Your task to perform on an android device: Add "asus rog" to the cart on costco.com, then select checkout. Image 0: 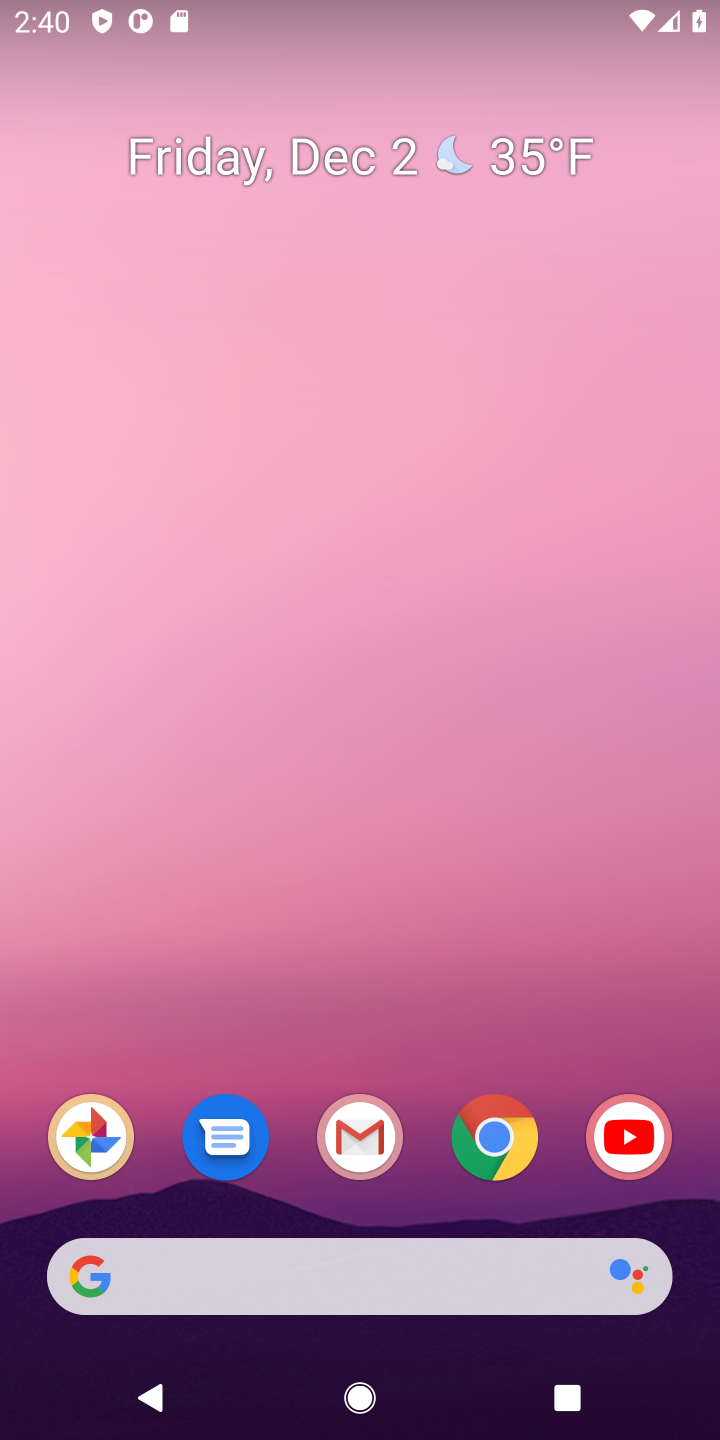
Step 0: drag from (281, 956) to (274, 467)
Your task to perform on an android device: Add "asus rog" to the cart on costco.com, then select checkout. Image 1: 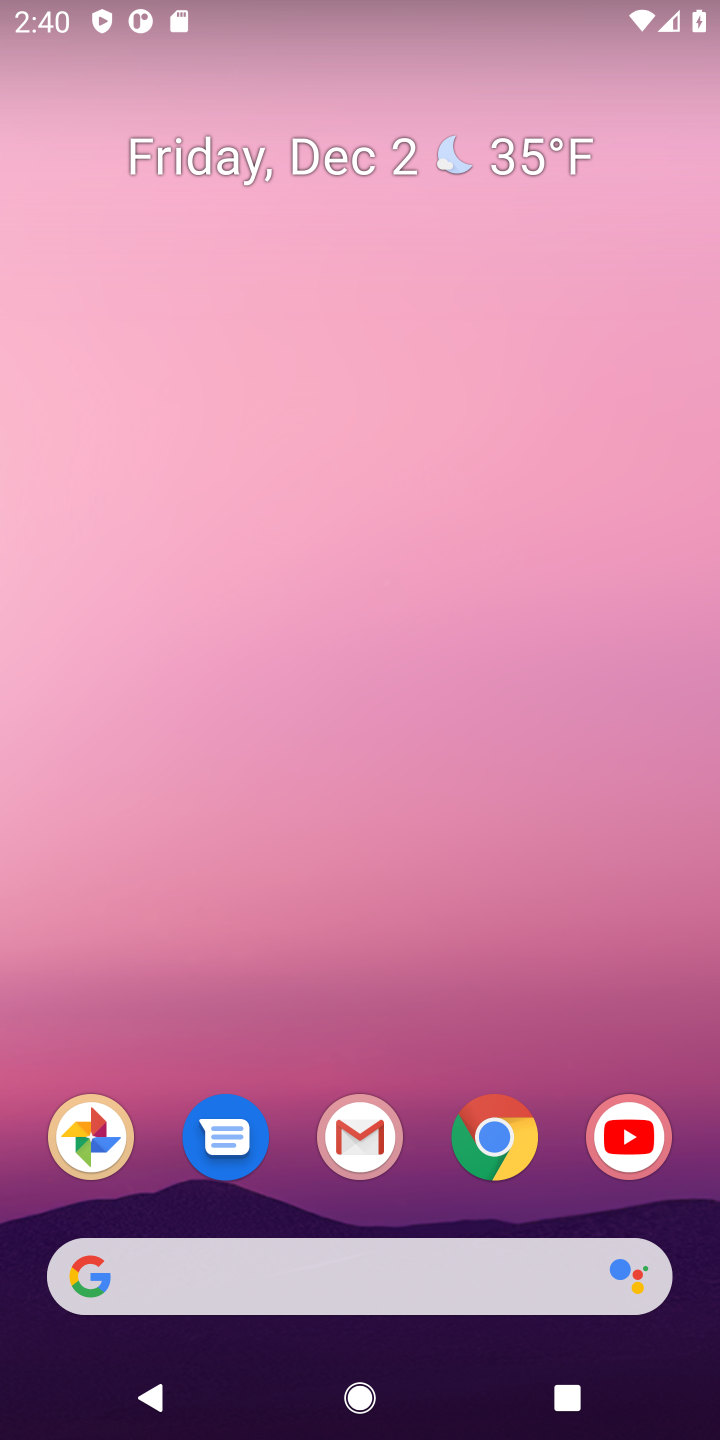
Step 1: drag from (470, 970) to (406, 374)
Your task to perform on an android device: Add "asus rog" to the cart on costco.com, then select checkout. Image 2: 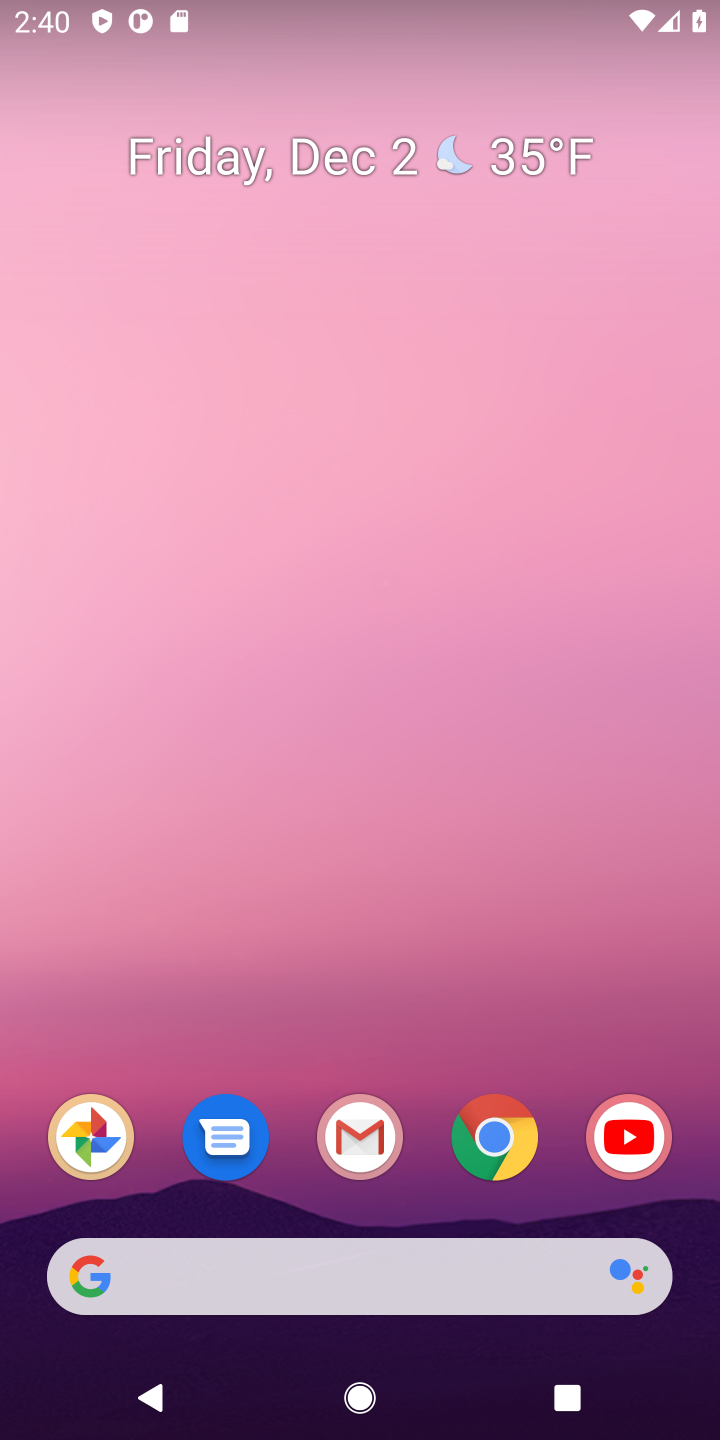
Step 2: drag from (351, 1162) to (335, 265)
Your task to perform on an android device: Add "asus rog" to the cart on costco.com, then select checkout. Image 3: 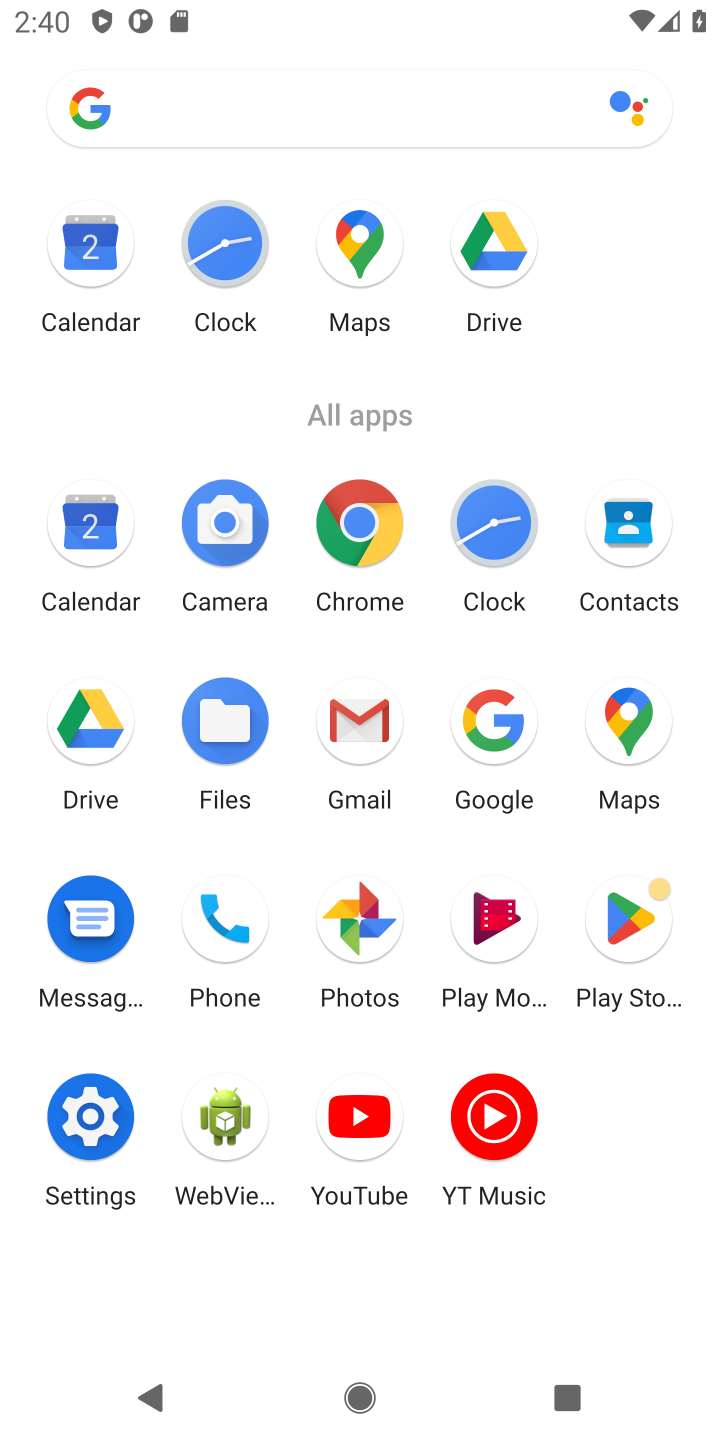
Step 3: click (508, 741)
Your task to perform on an android device: Add "asus rog" to the cart on costco.com, then select checkout. Image 4: 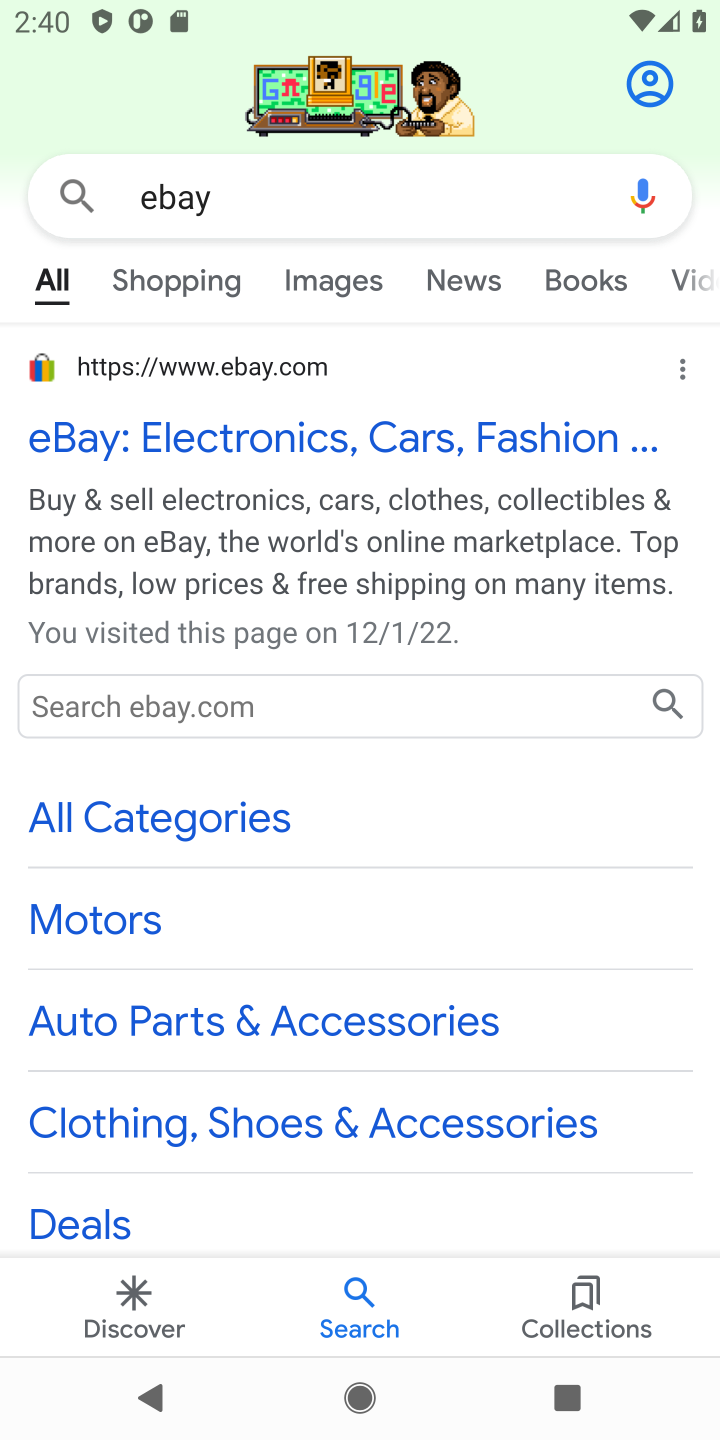
Step 4: click (180, 206)
Your task to perform on an android device: Add "asus rog" to the cart on costco.com, then select checkout. Image 5: 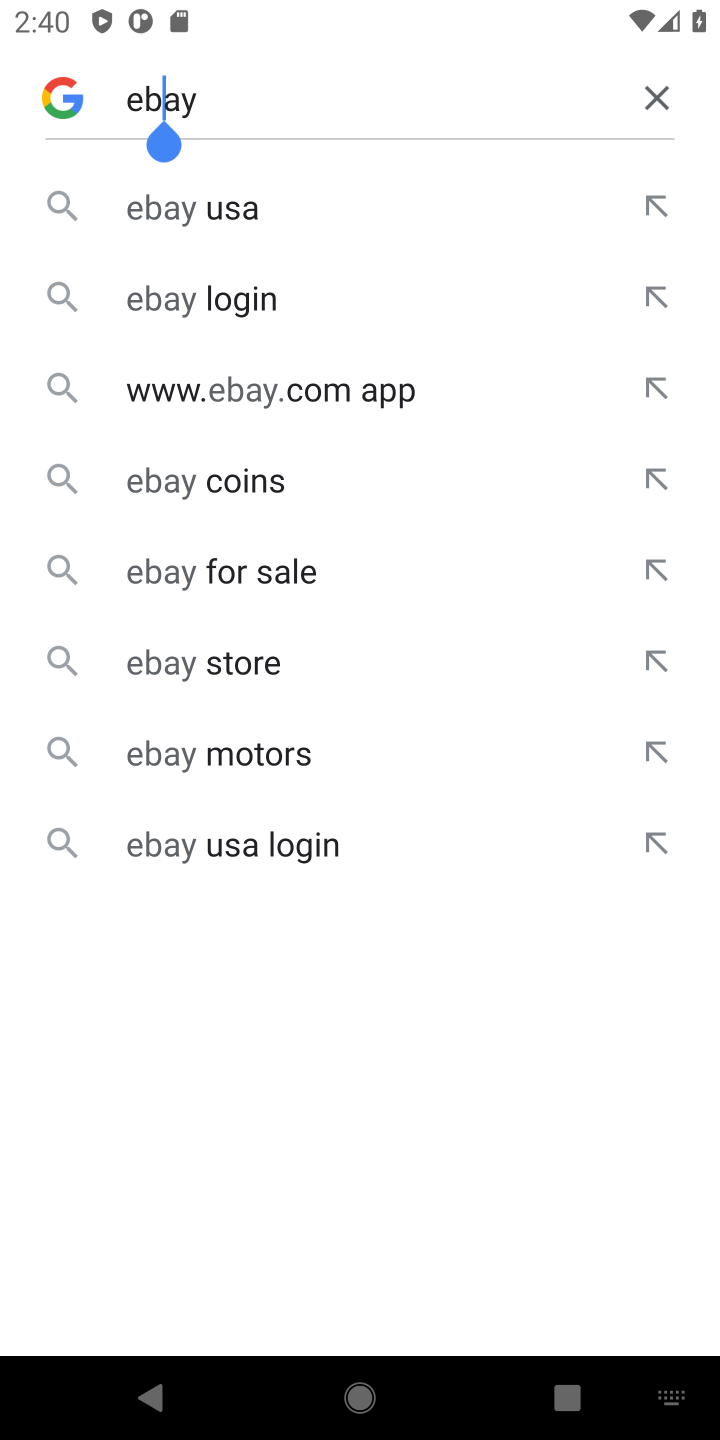
Step 5: click (659, 91)
Your task to perform on an android device: Add "asus rog" to the cart on costco.com, then select checkout. Image 6: 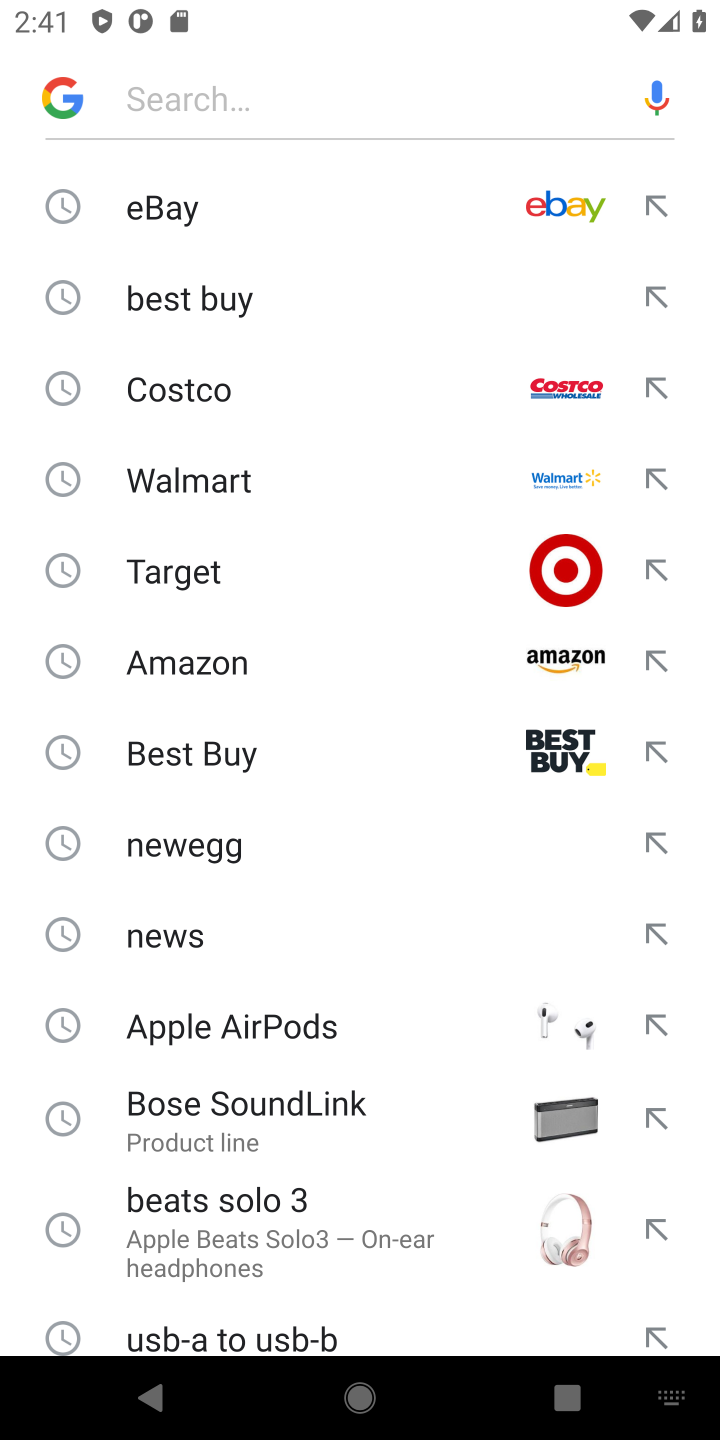
Step 6: click (195, 395)
Your task to perform on an android device: Add "asus rog" to the cart on costco.com, then select checkout. Image 7: 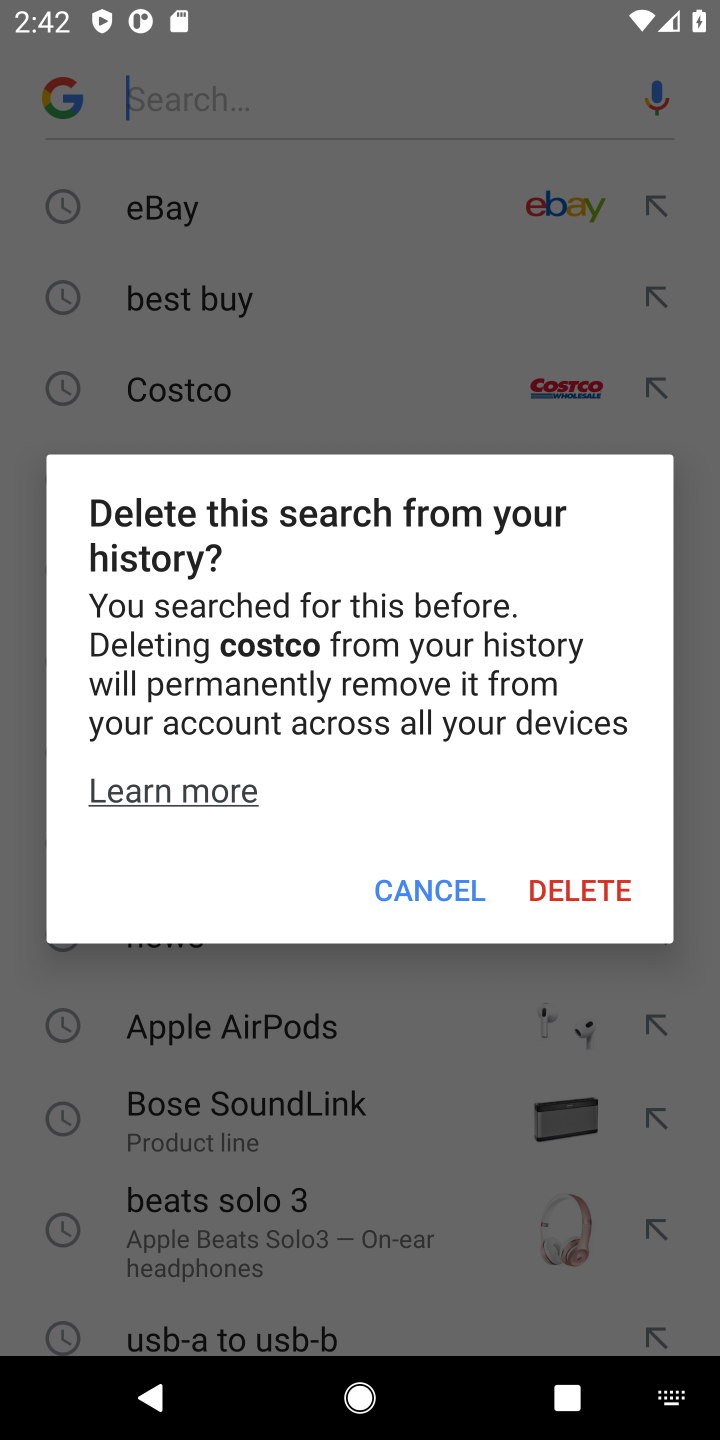
Step 7: click (436, 902)
Your task to perform on an android device: Add "asus rog" to the cart on costco.com, then select checkout. Image 8: 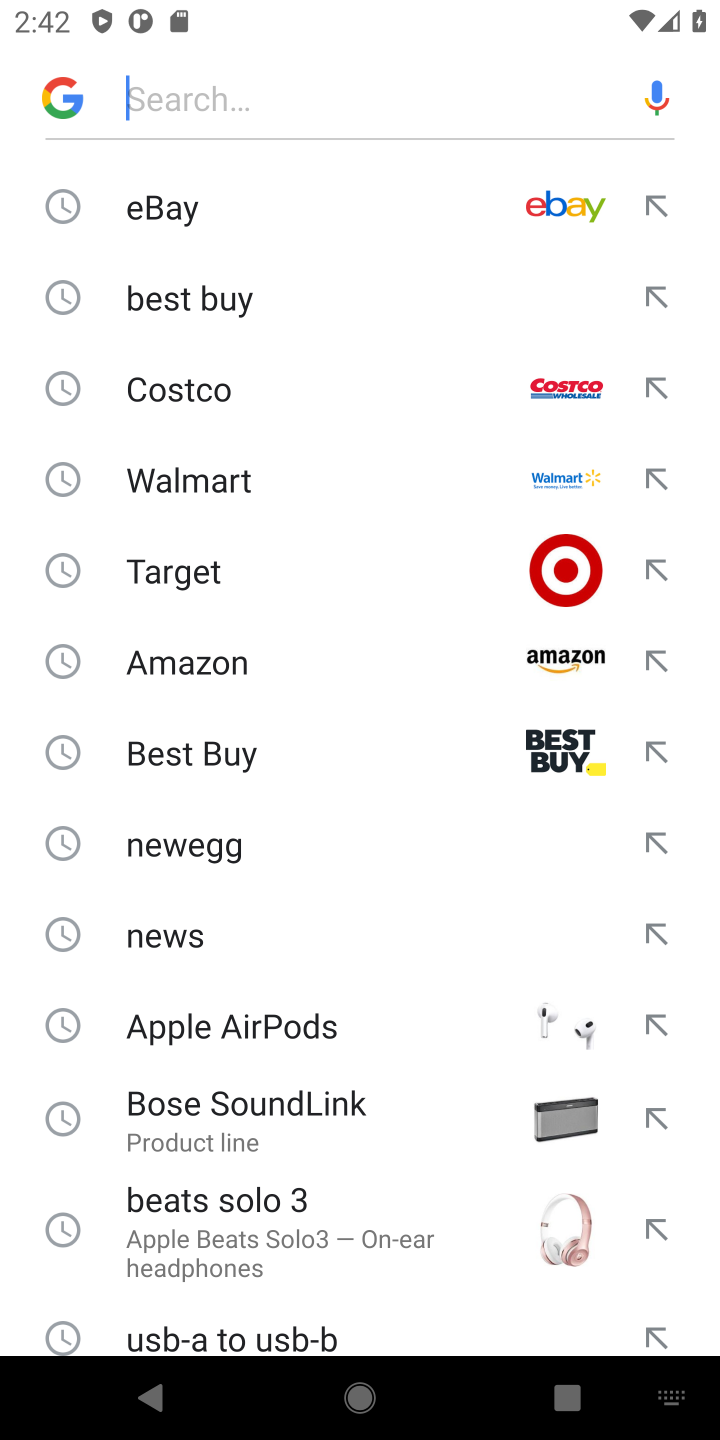
Step 8: click (206, 390)
Your task to perform on an android device: Add "asus rog" to the cart on costco.com, then select checkout. Image 9: 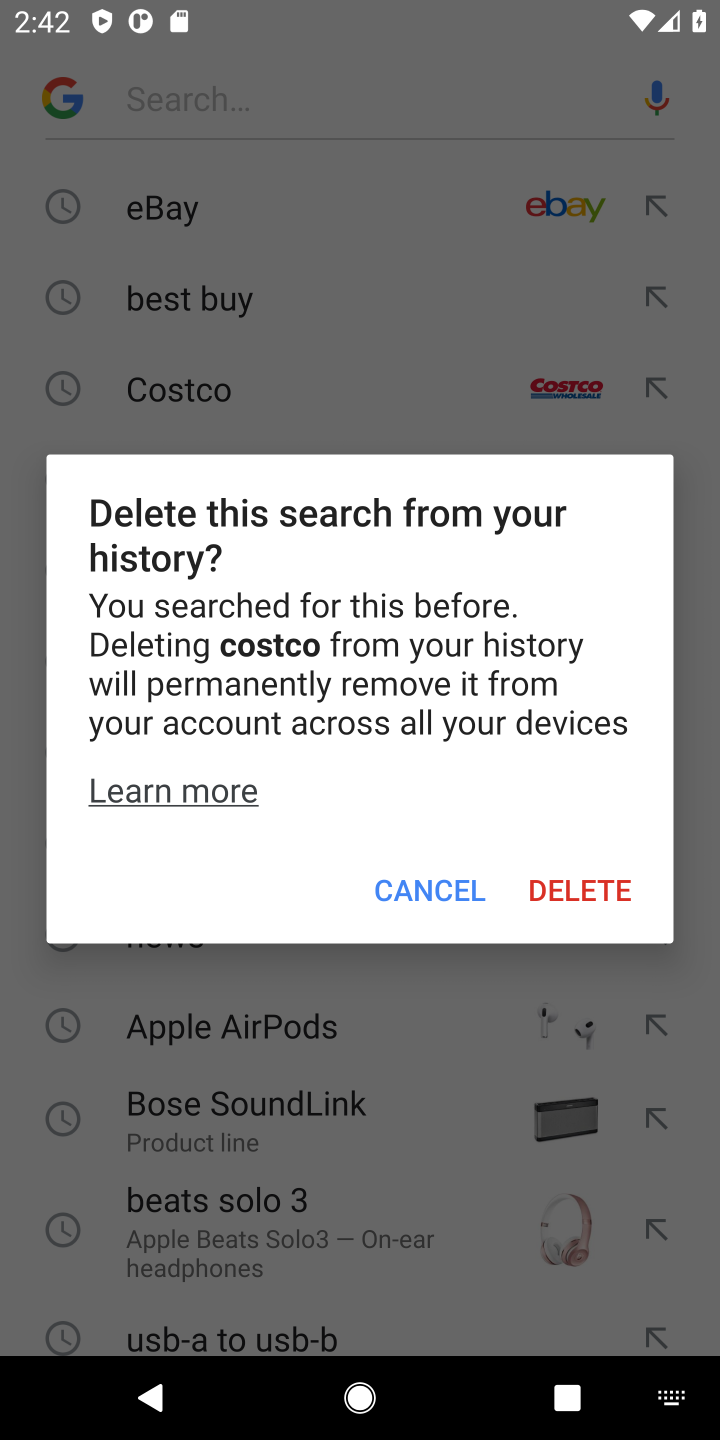
Step 9: click (407, 887)
Your task to perform on an android device: Add "asus rog" to the cart on costco.com, then select checkout. Image 10: 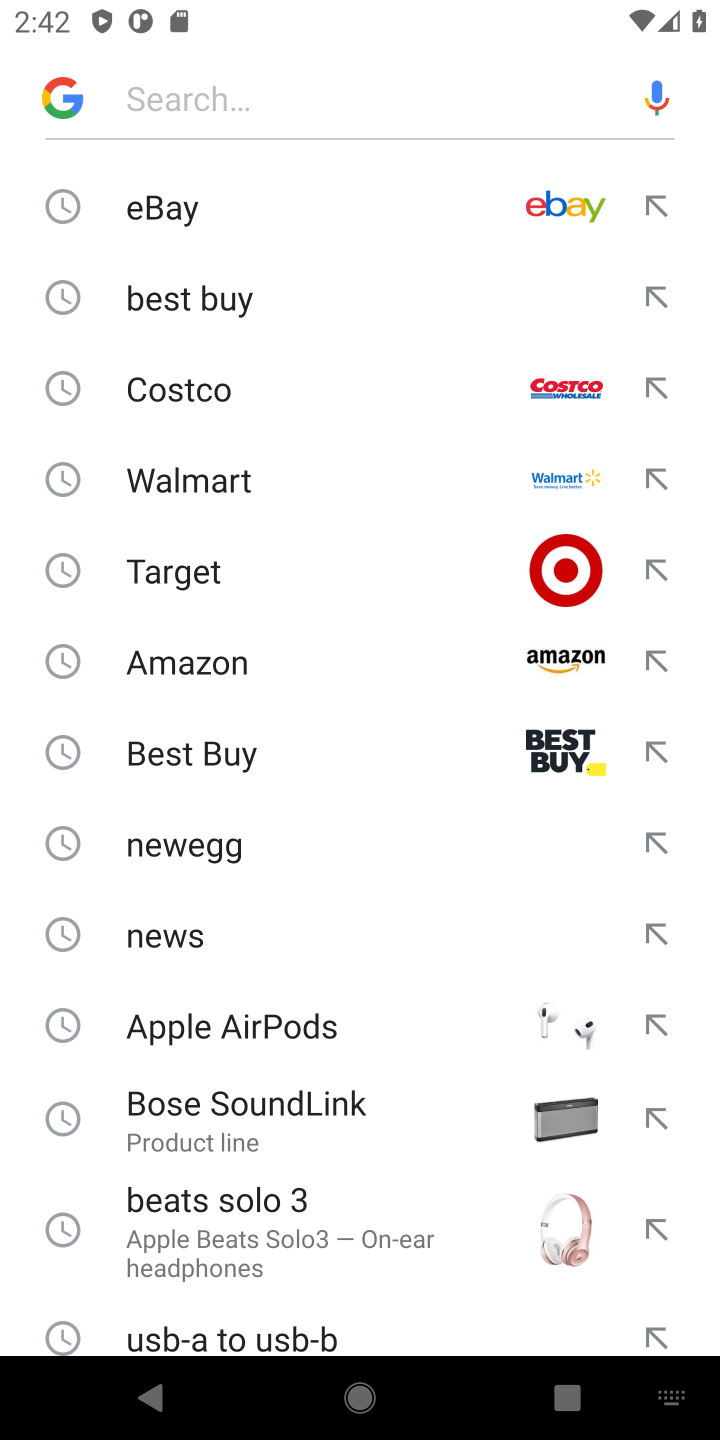
Step 10: click (596, 385)
Your task to perform on an android device: Add "asus rog" to the cart on costco.com, then select checkout. Image 11: 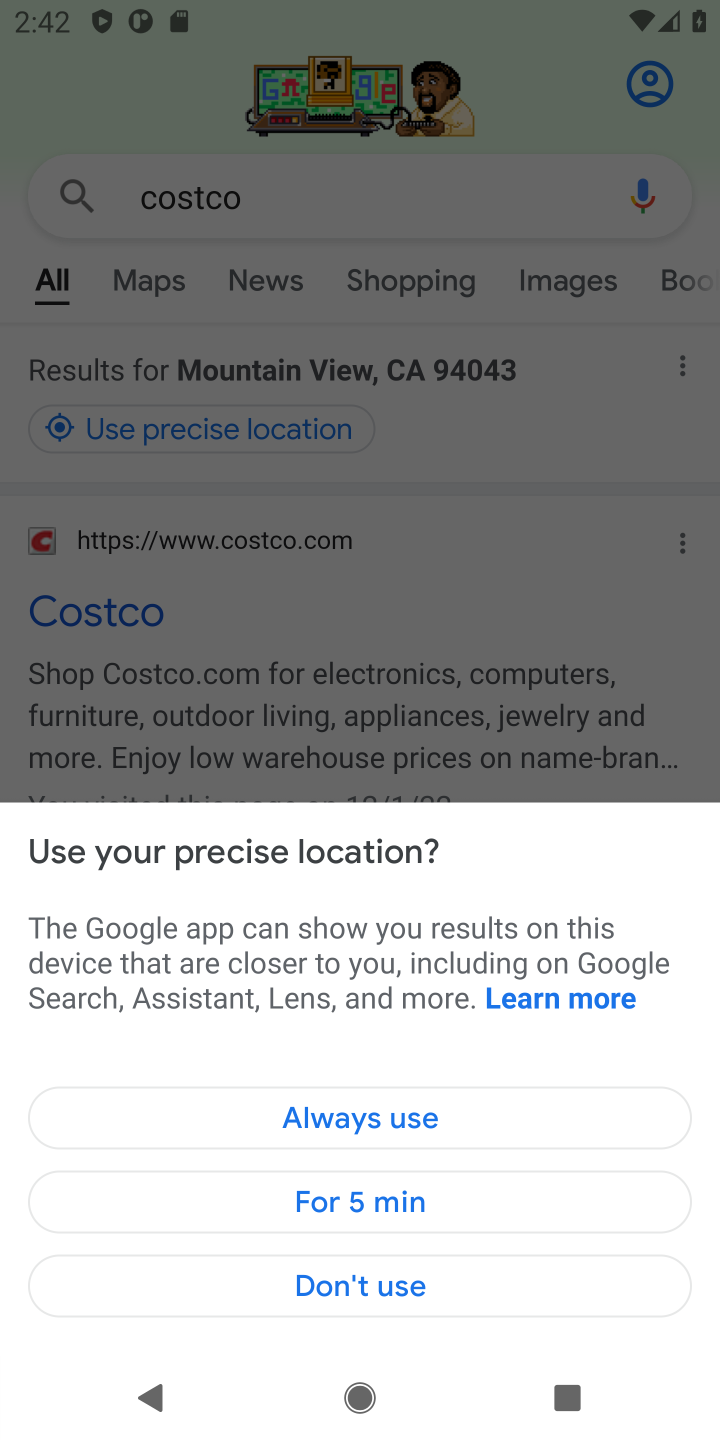
Step 11: click (405, 1282)
Your task to perform on an android device: Add "asus rog" to the cart on costco.com, then select checkout. Image 12: 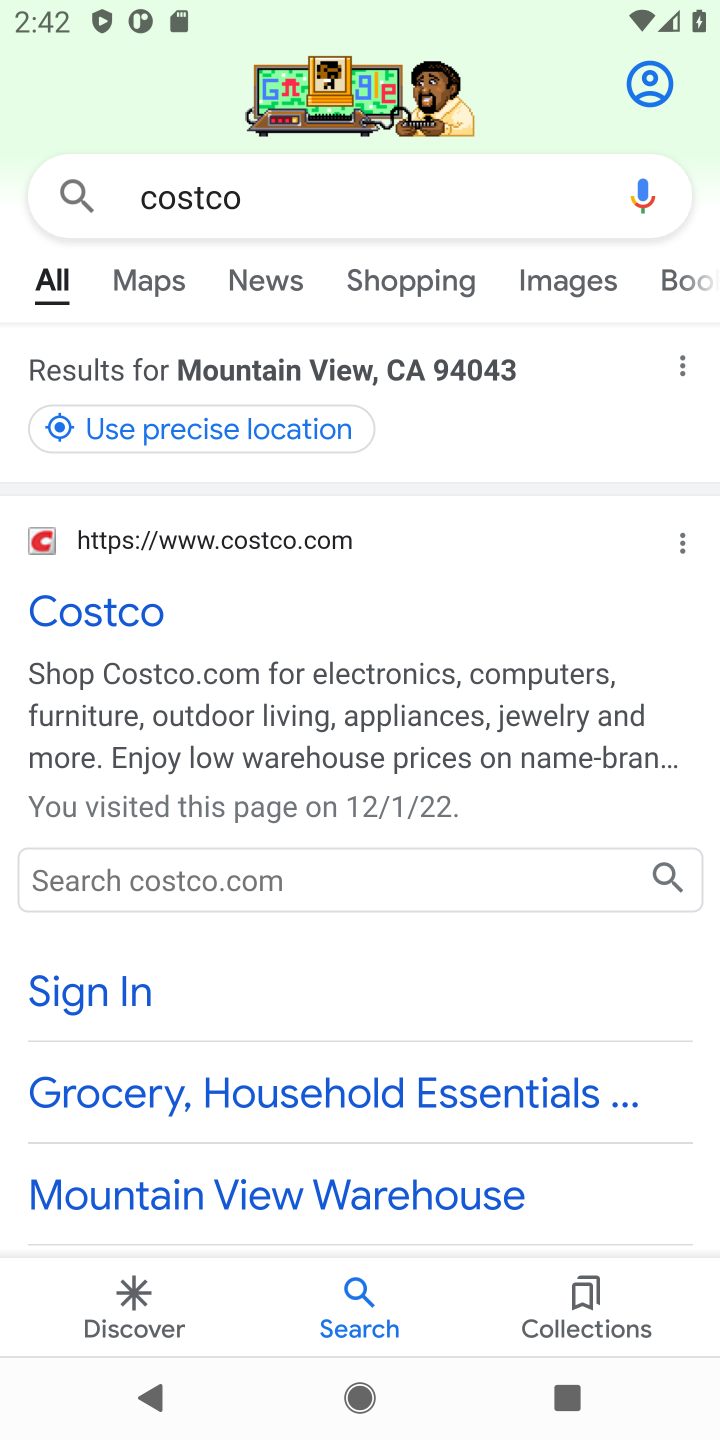
Step 12: click (111, 611)
Your task to perform on an android device: Add "asus rog" to the cart on costco.com, then select checkout. Image 13: 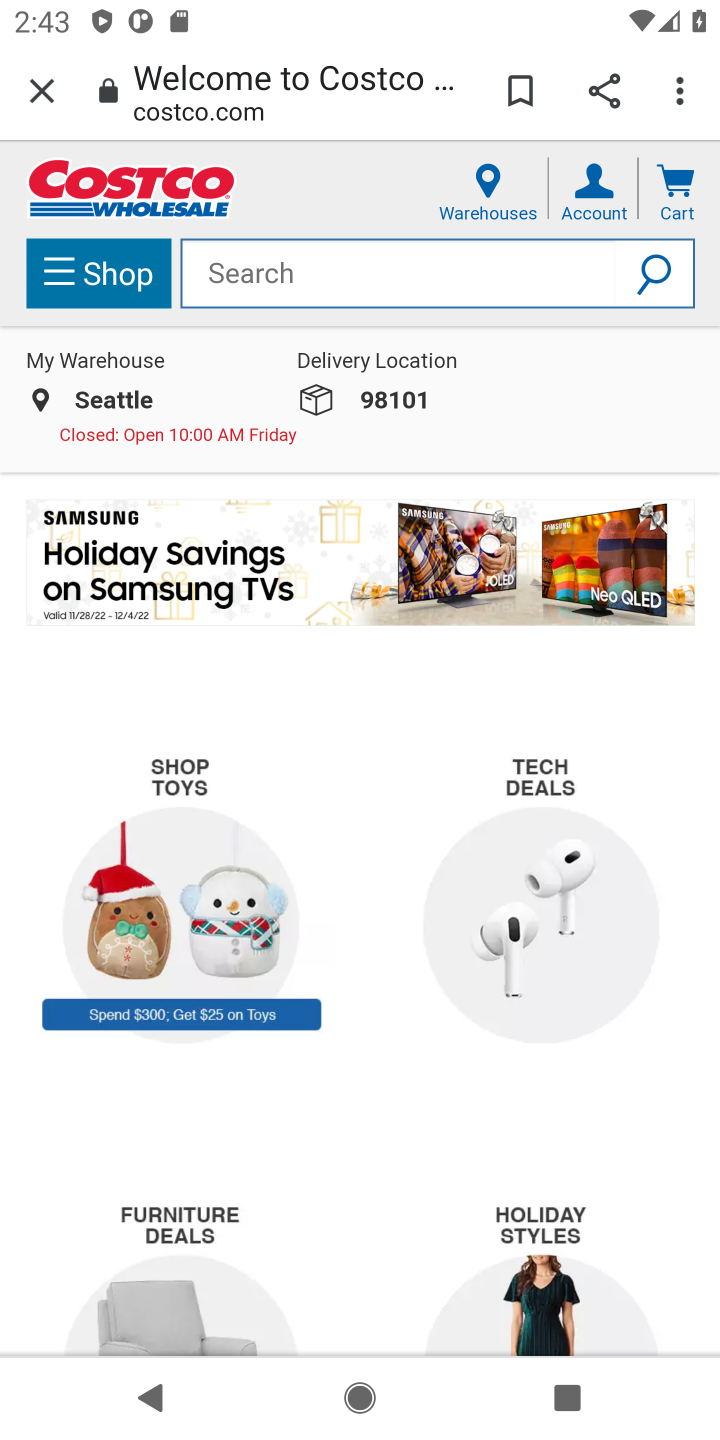
Step 13: click (265, 273)
Your task to perform on an android device: Add "asus rog" to the cart on costco.com, then select checkout. Image 14: 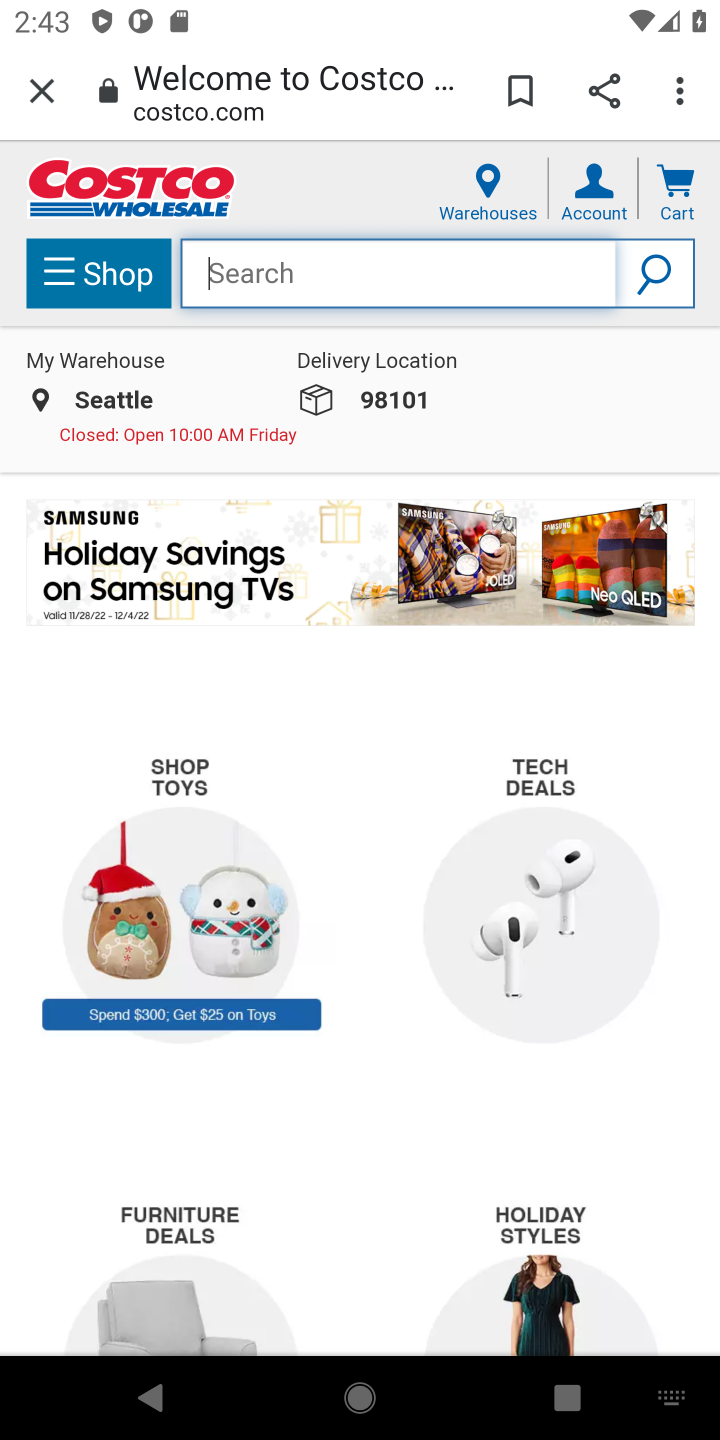
Step 14: type "asus rog"
Your task to perform on an android device: Add "asus rog" to the cart on costco.com, then select checkout. Image 15: 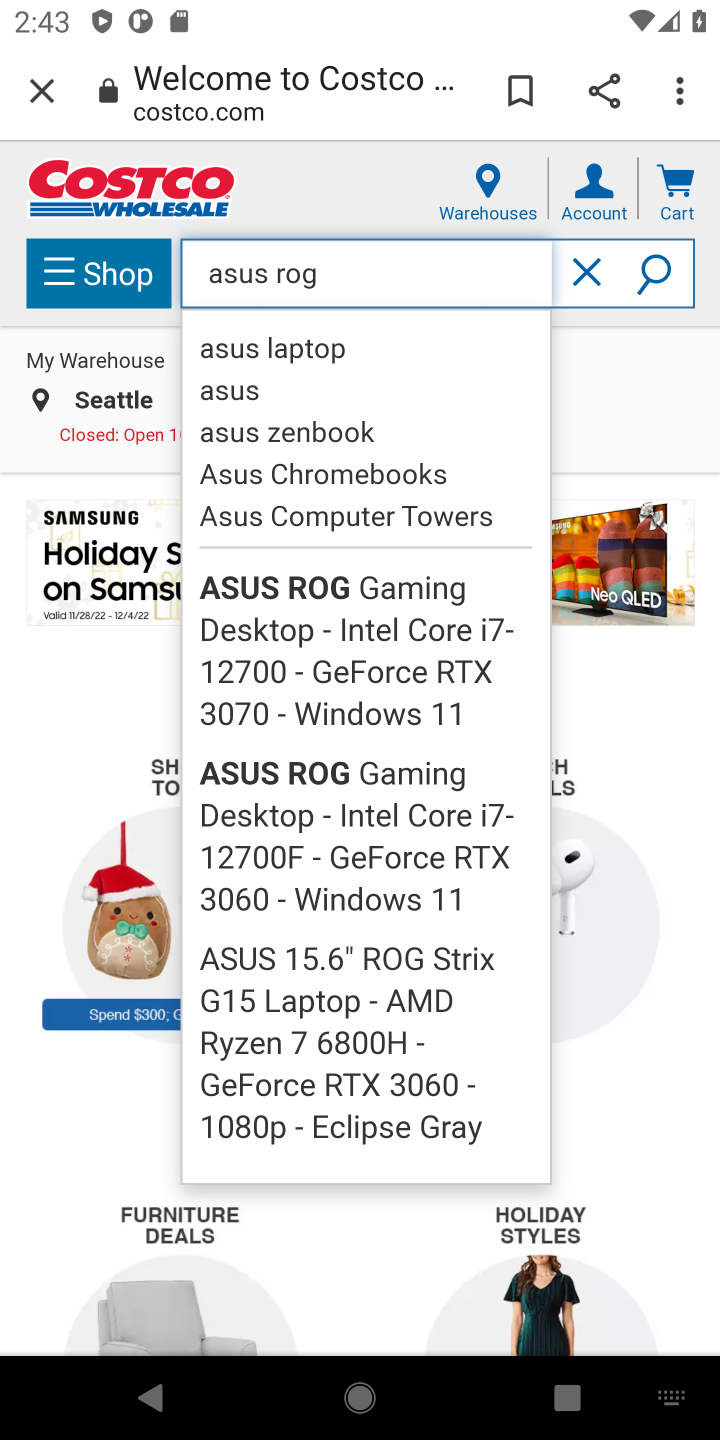
Step 15: click (221, 392)
Your task to perform on an android device: Add "asus rog" to the cart on costco.com, then select checkout. Image 16: 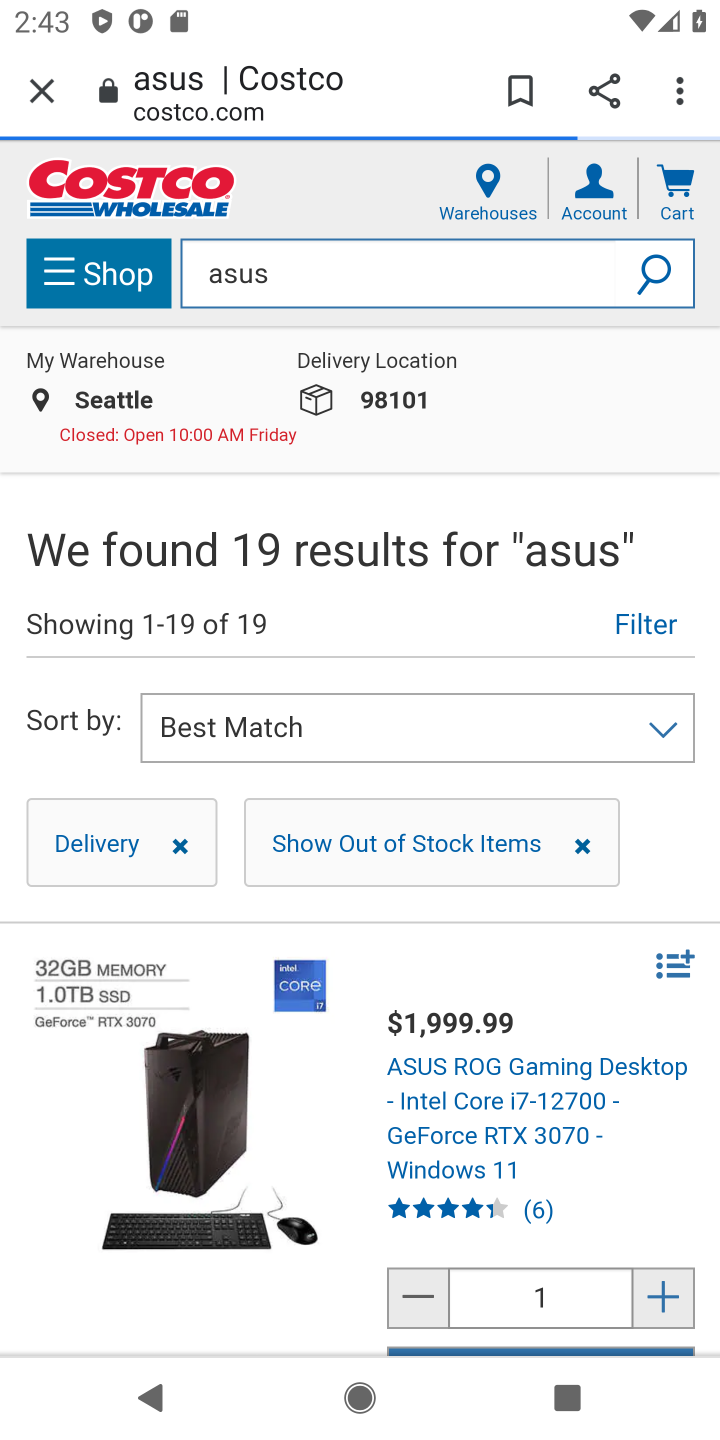
Step 16: drag from (324, 1253) to (308, 694)
Your task to perform on an android device: Add "asus rog" to the cart on costco.com, then select checkout. Image 17: 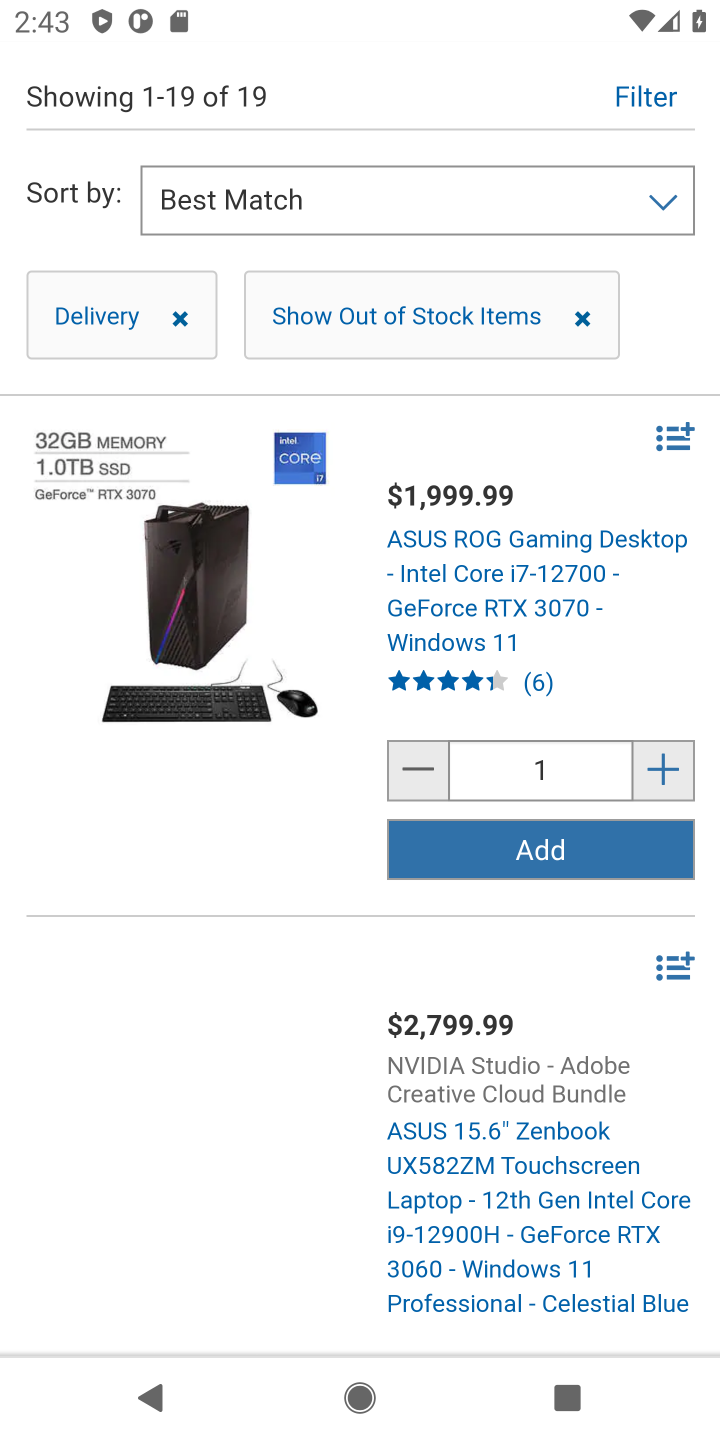
Step 17: click (527, 845)
Your task to perform on an android device: Add "asus rog" to the cart on costco.com, then select checkout. Image 18: 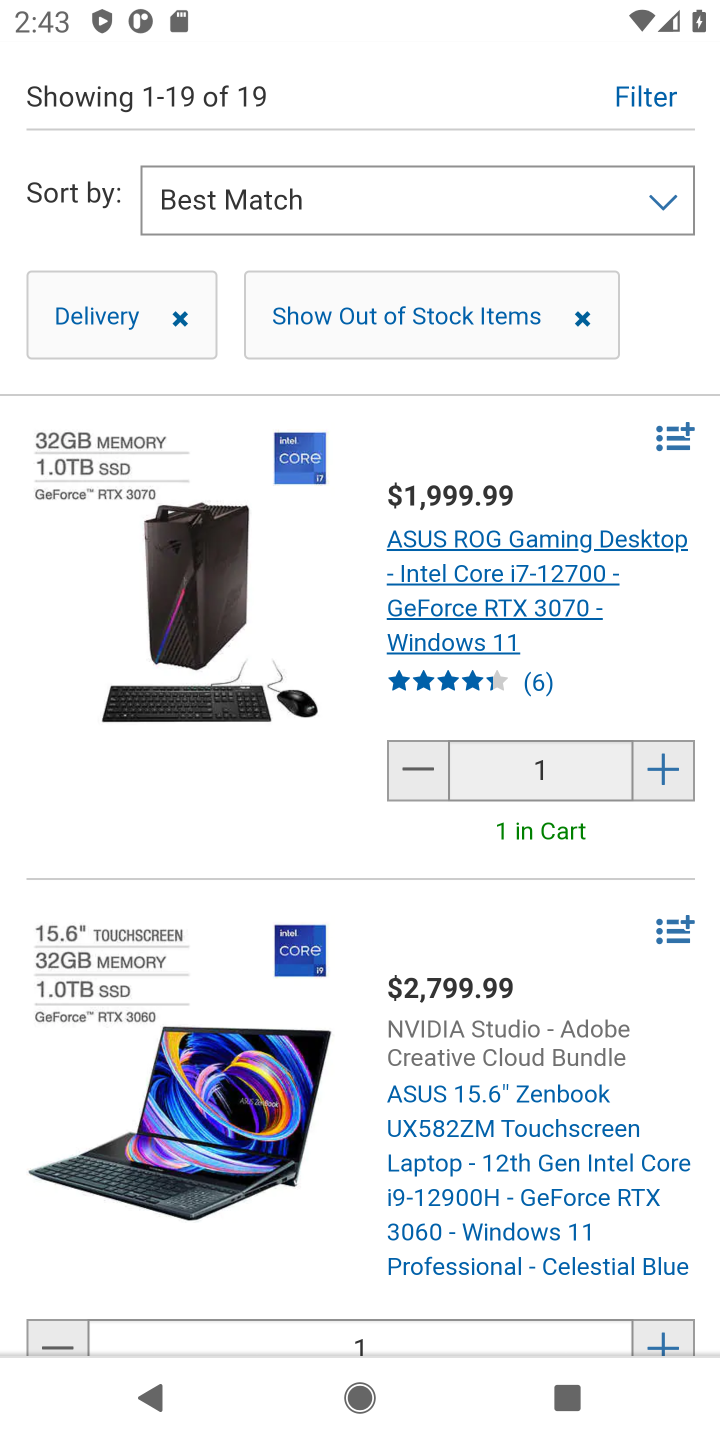
Step 18: drag from (424, 363) to (470, 1016)
Your task to perform on an android device: Add "asus rog" to the cart on costco.com, then select checkout. Image 19: 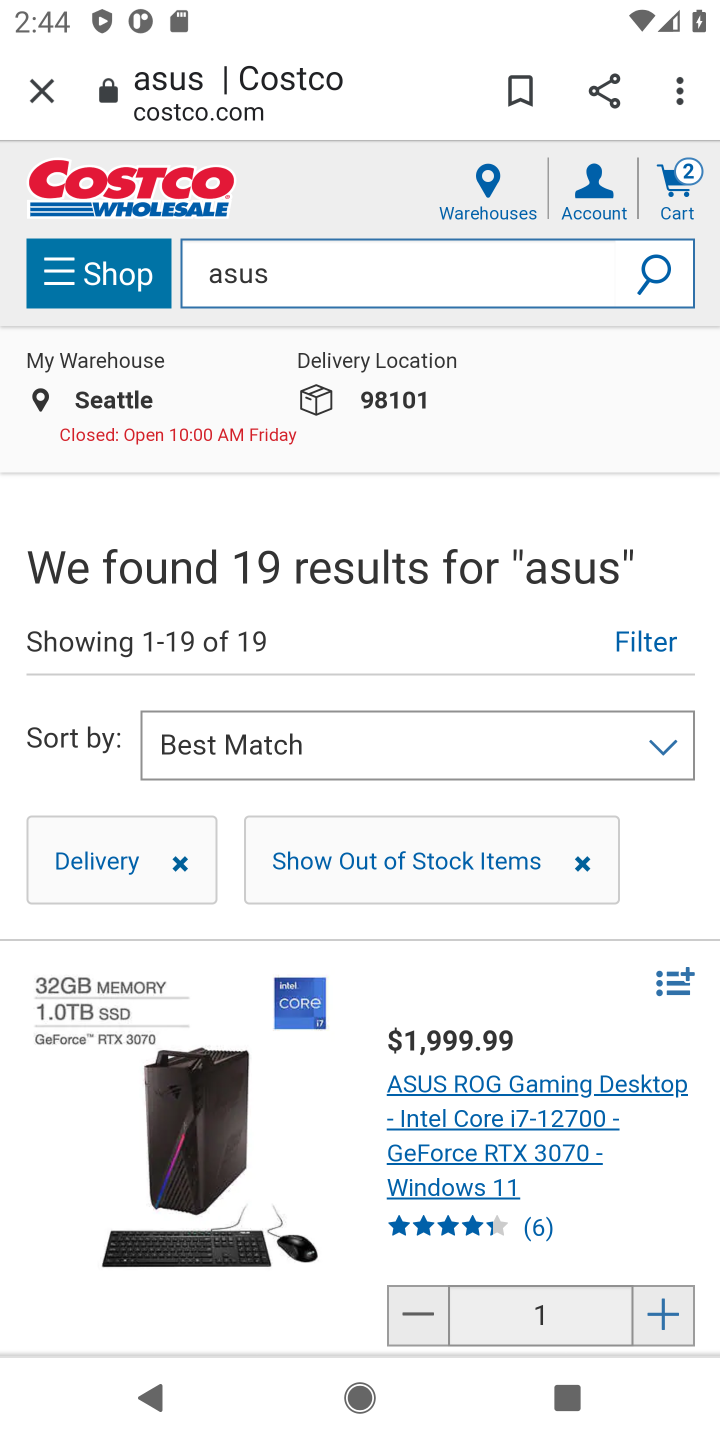
Step 19: click (669, 166)
Your task to perform on an android device: Add "asus rog" to the cart on costco.com, then select checkout. Image 20: 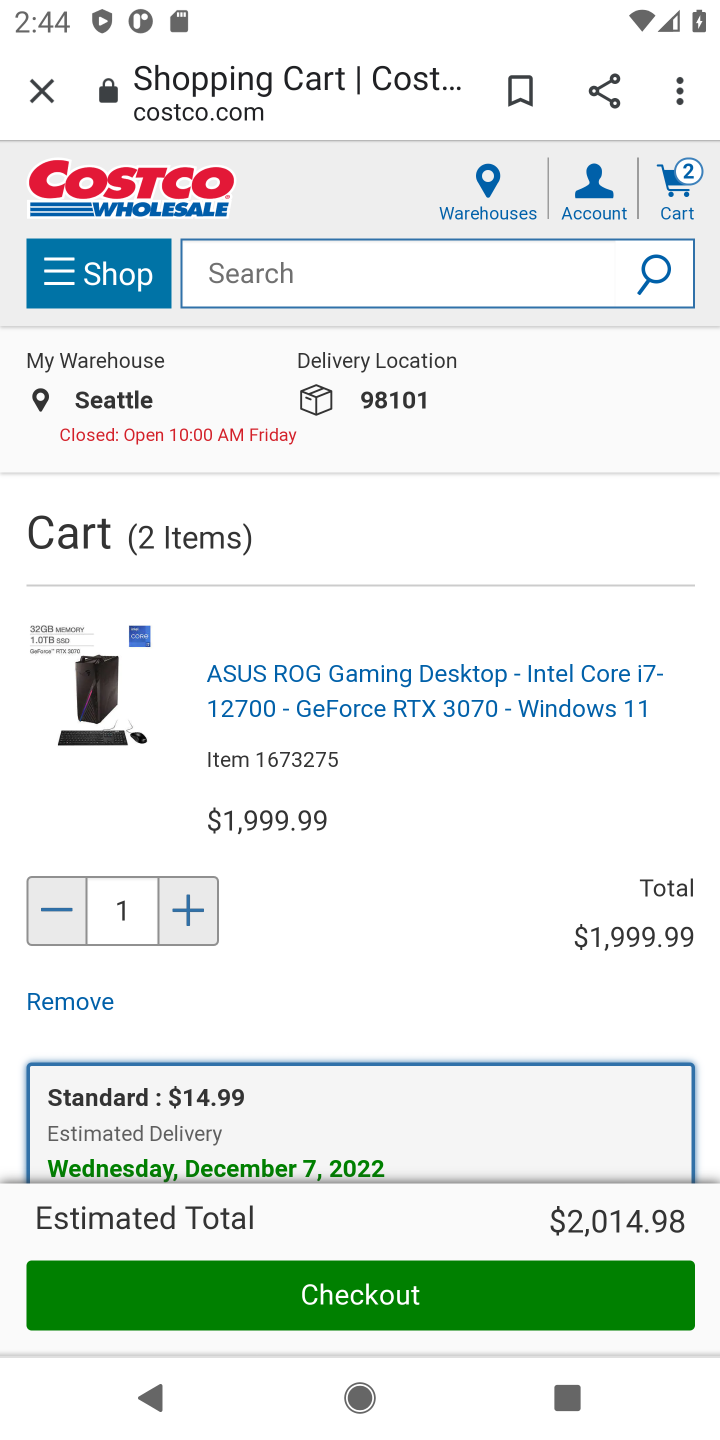
Step 20: click (361, 1302)
Your task to perform on an android device: Add "asus rog" to the cart on costco.com, then select checkout. Image 21: 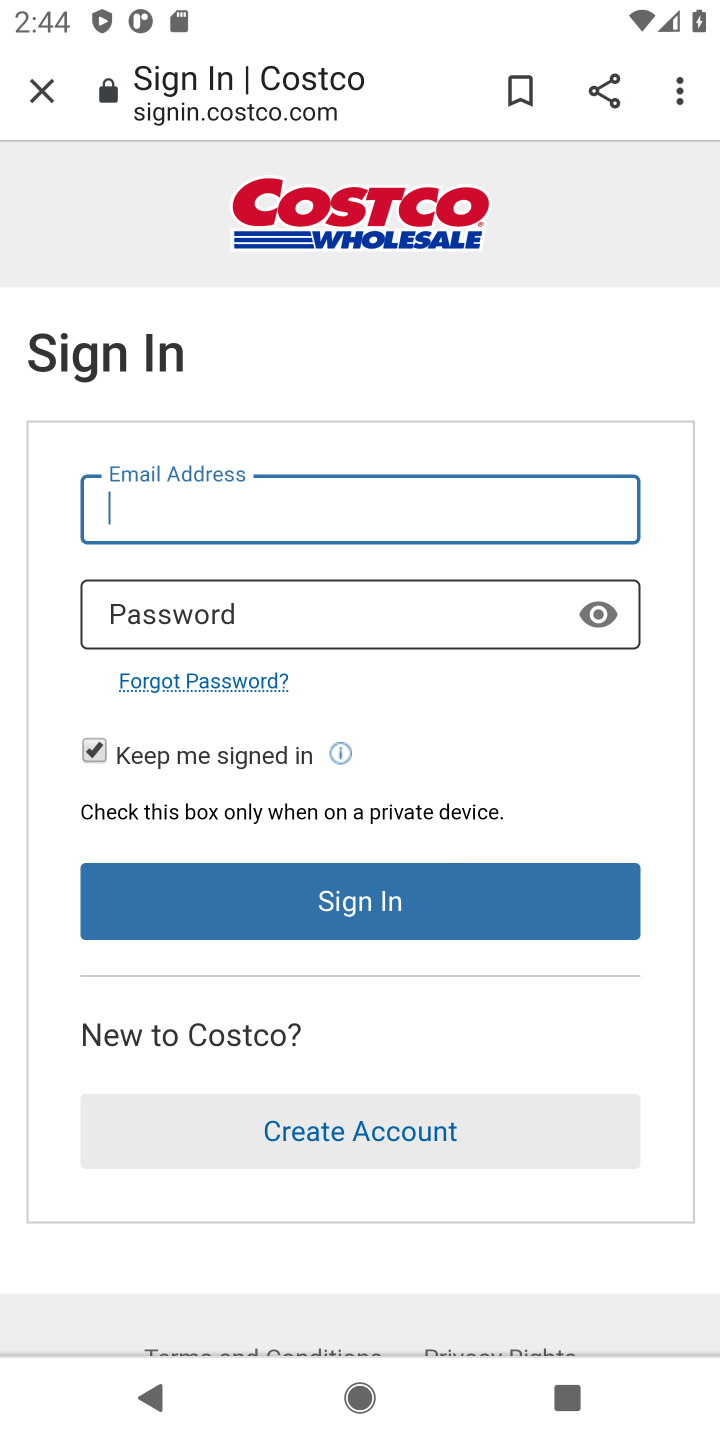
Step 21: task complete